Your task to perform on an android device: Go to Yahoo.com Image 0: 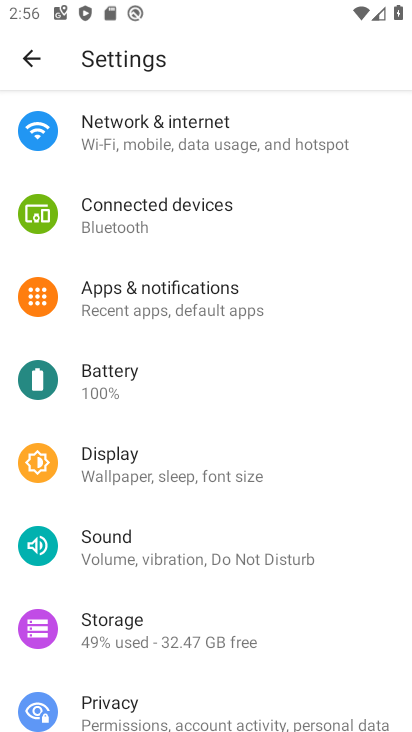
Step 0: press home button
Your task to perform on an android device: Go to Yahoo.com Image 1: 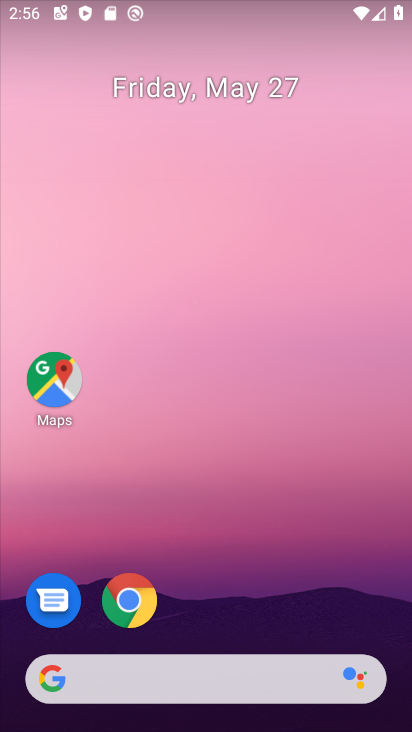
Step 1: click (145, 603)
Your task to perform on an android device: Go to Yahoo.com Image 2: 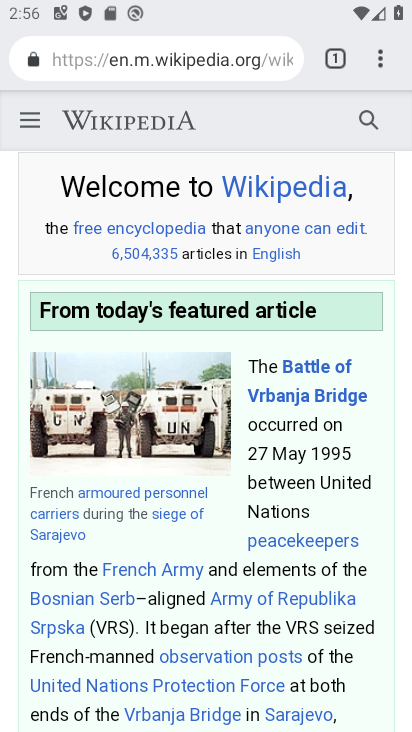
Step 2: click (244, 68)
Your task to perform on an android device: Go to Yahoo.com Image 3: 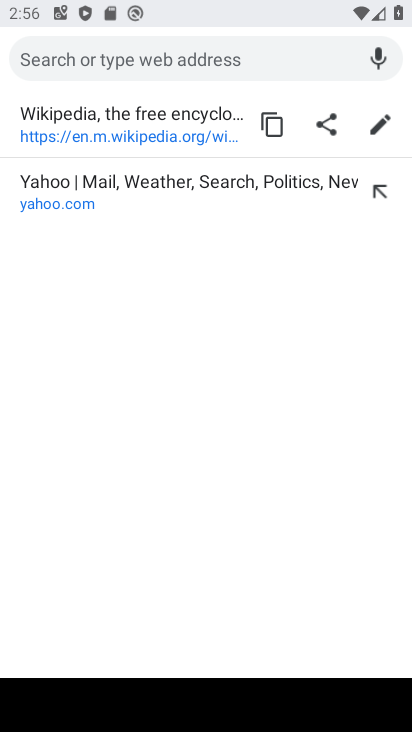
Step 3: click (111, 176)
Your task to perform on an android device: Go to Yahoo.com Image 4: 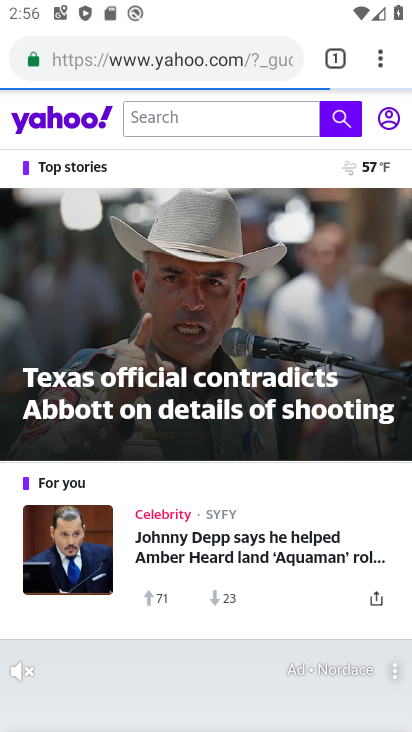
Step 4: task complete